Your task to perform on an android device: Search for hotels in Buenos aires Image 0: 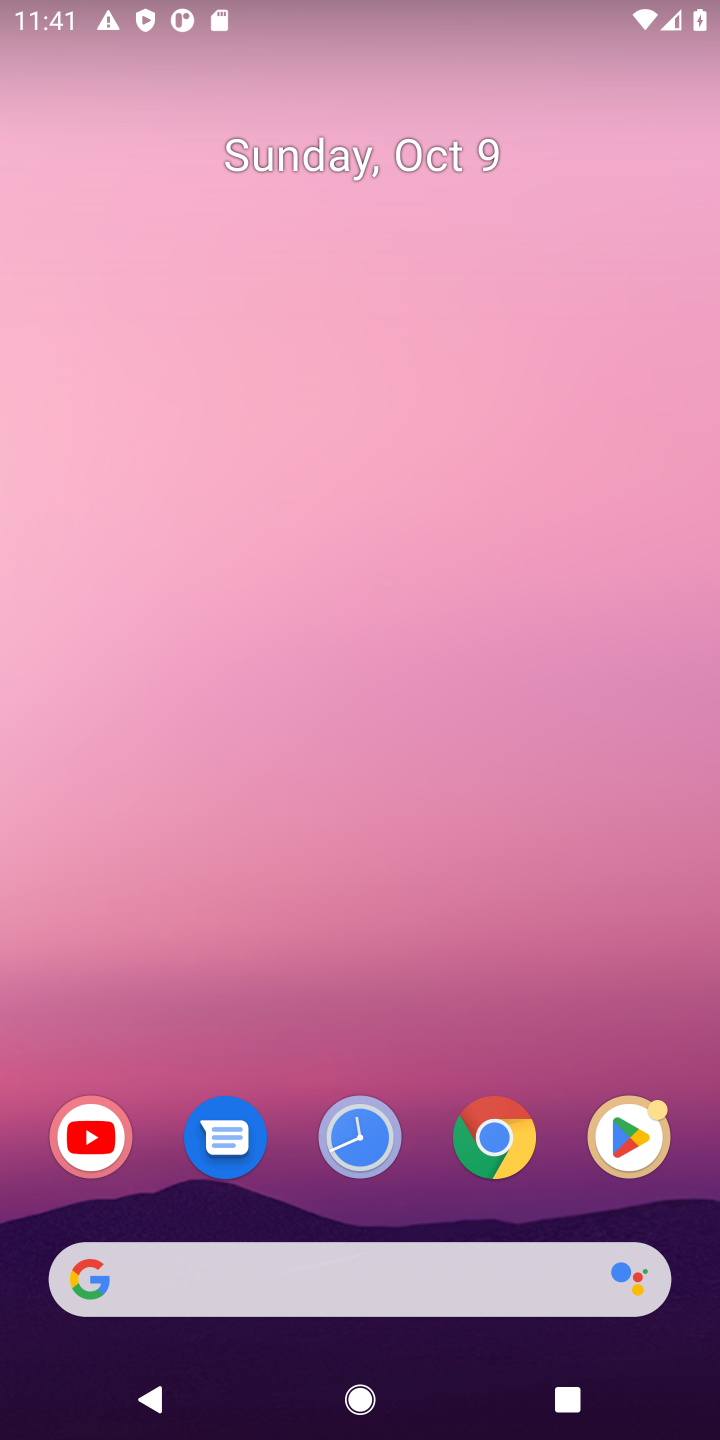
Step 0: drag from (431, 1084) to (593, 199)
Your task to perform on an android device: Search for hotels in Buenos aires Image 1: 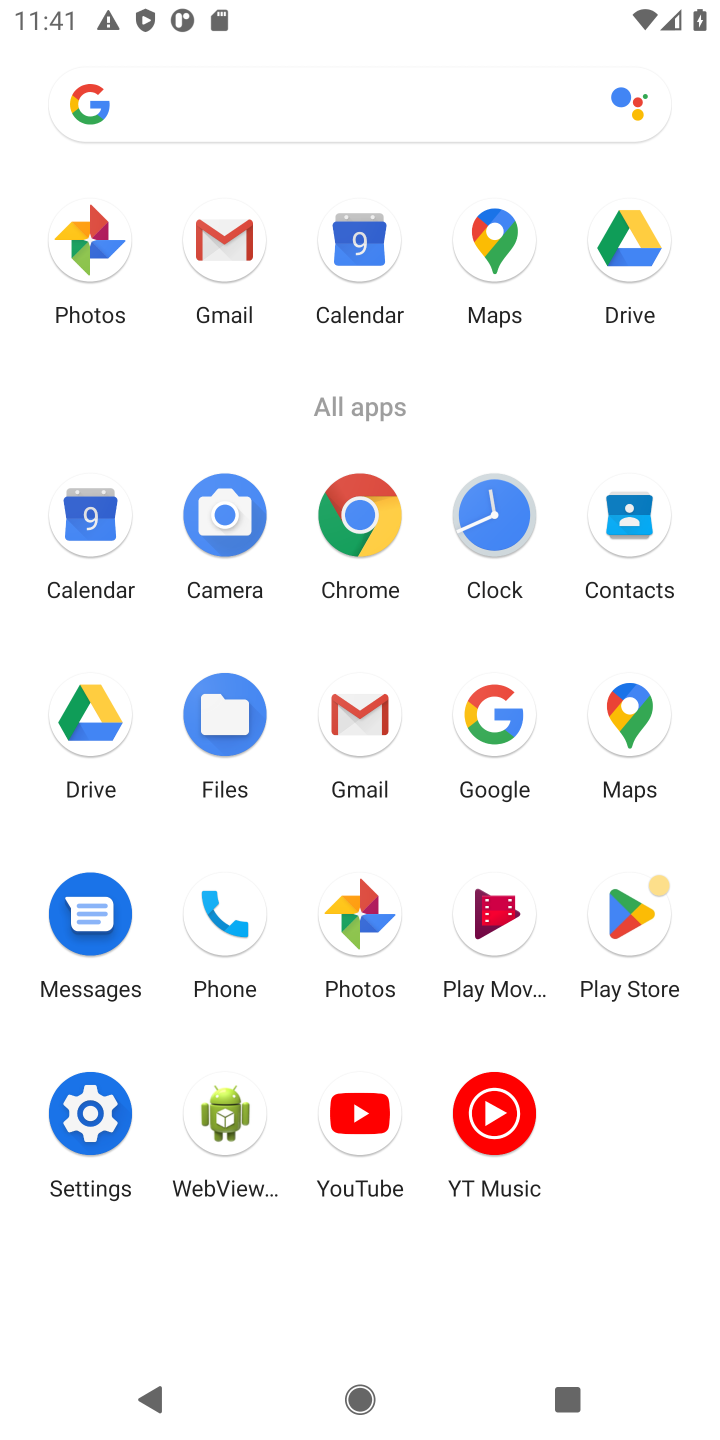
Step 1: click (353, 505)
Your task to perform on an android device: Search for hotels in Buenos aires Image 2: 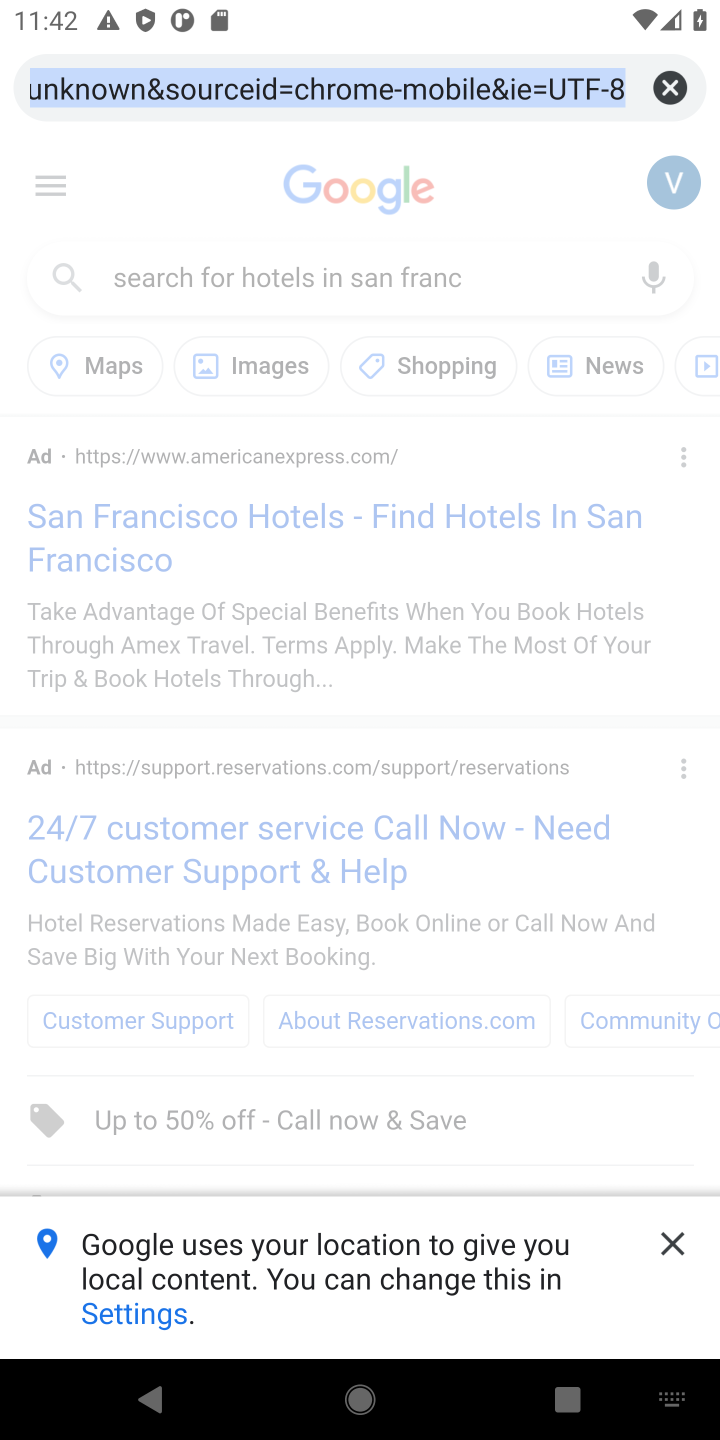
Step 2: click (661, 90)
Your task to perform on an android device: Search for hotels in Buenos aires Image 3: 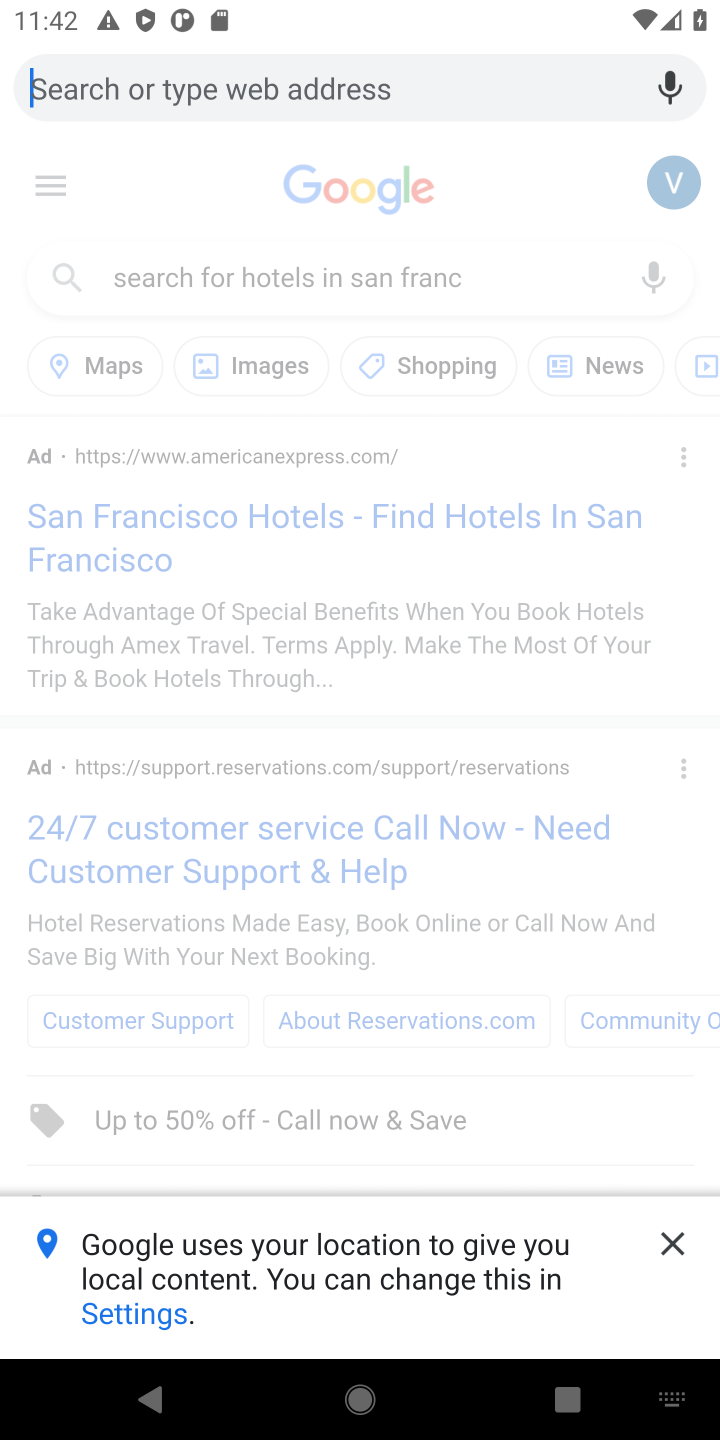
Step 3: type "Search for hotels in Buenos aires"
Your task to perform on an android device: Search for hotels in Buenos aires Image 4: 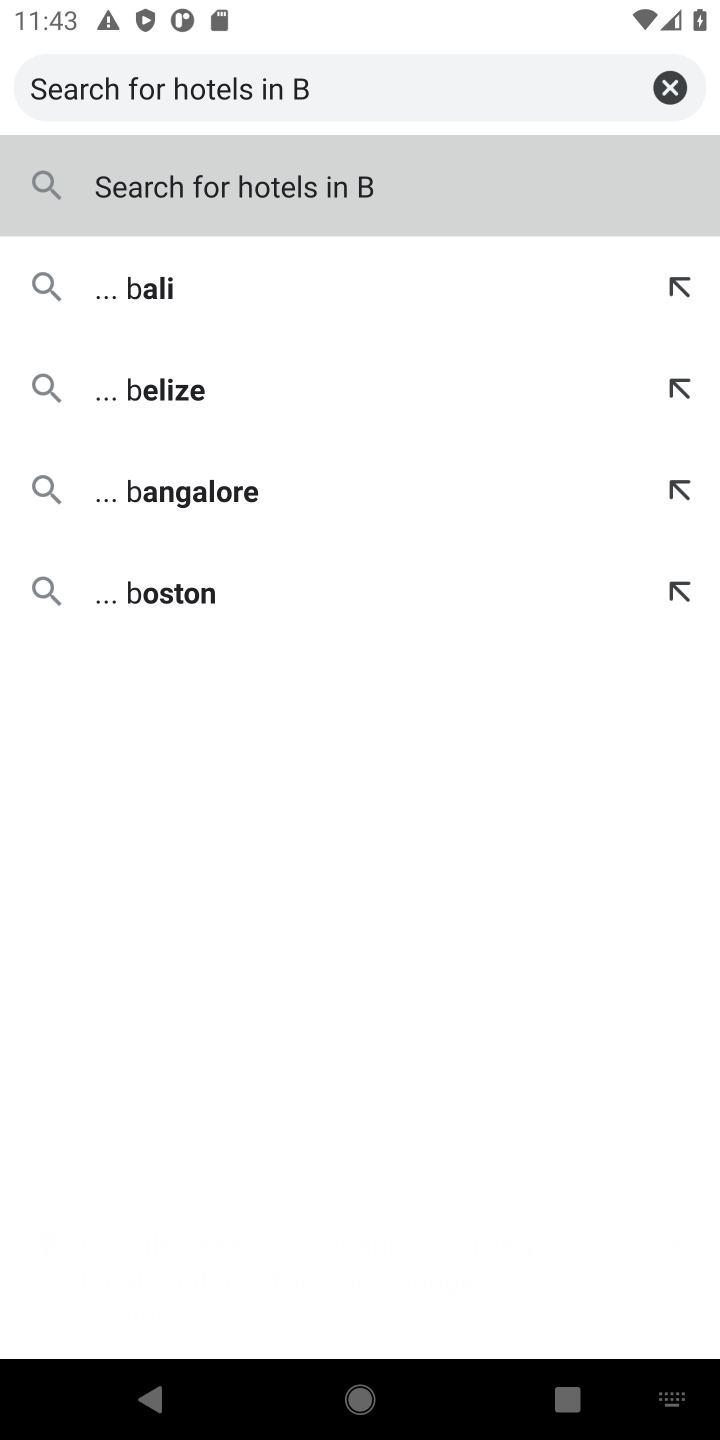
Step 4: click (344, 177)
Your task to perform on an android device: Search for hotels in Buenos aires Image 5: 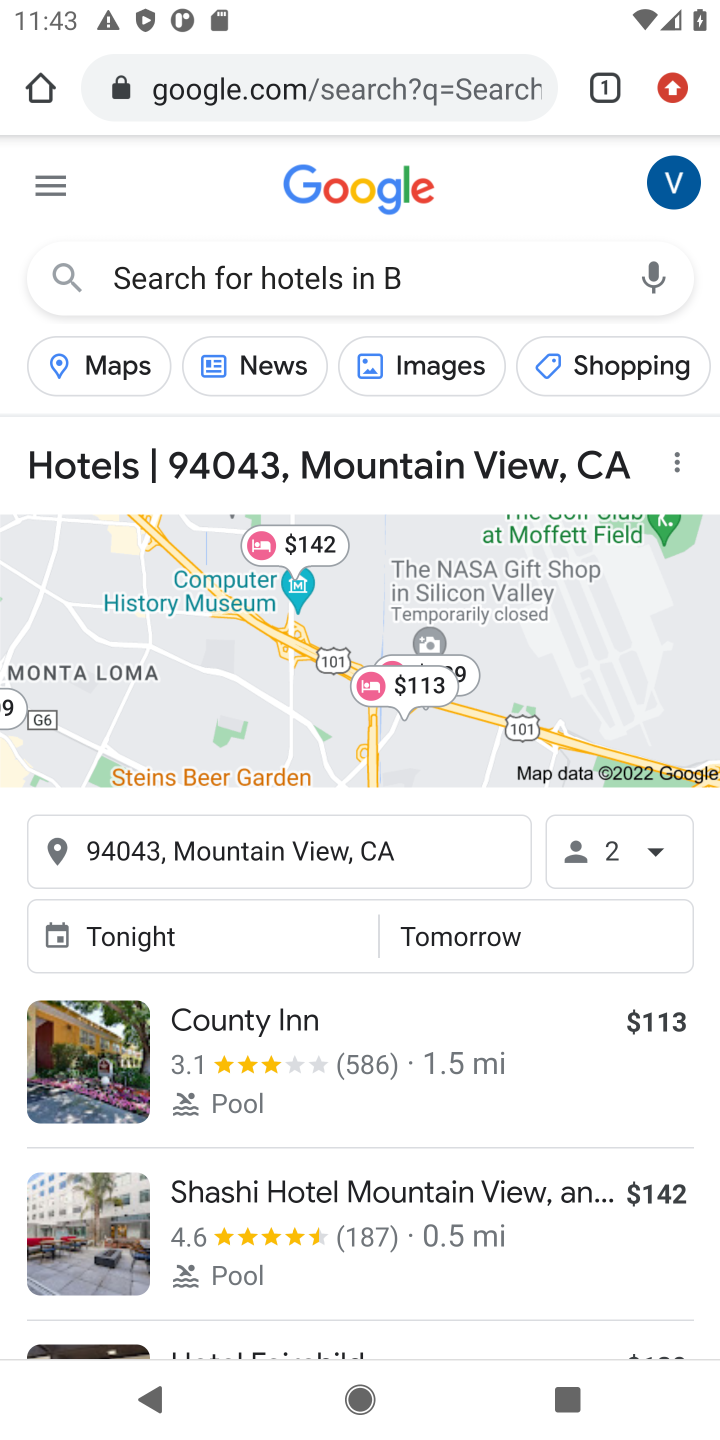
Step 5: task complete